Your task to perform on an android device: toggle sleep mode Image 0: 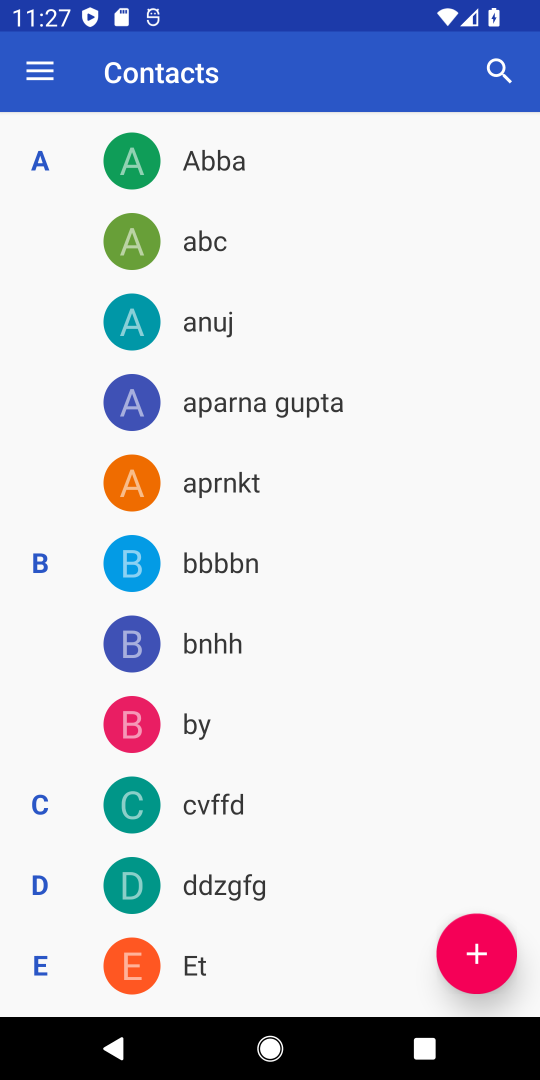
Step 0: drag from (274, 410) to (332, 987)
Your task to perform on an android device: toggle sleep mode Image 1: 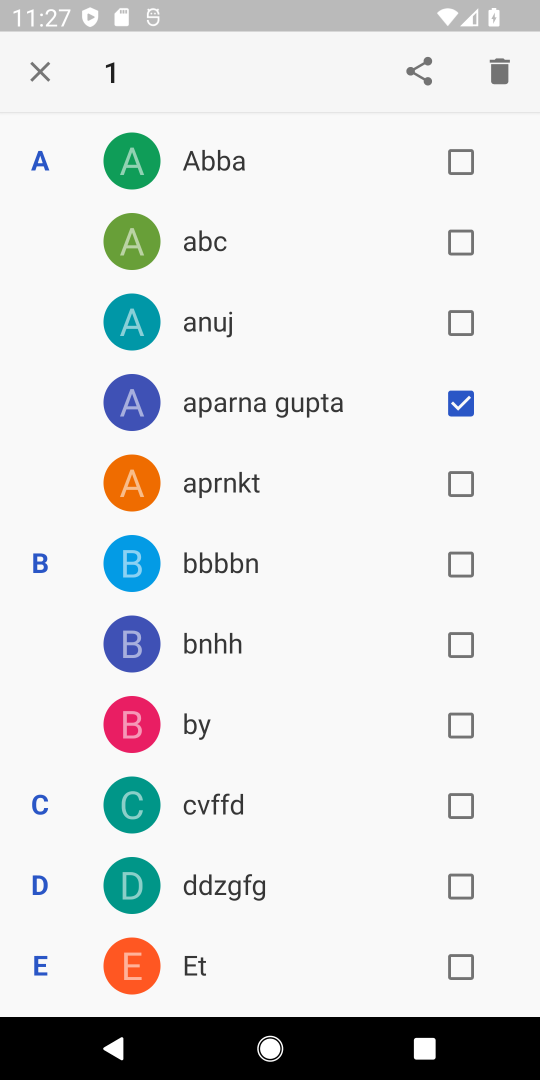
Step 1: task complete